Your task to perform on an android device: Go to battery settings Image 0: 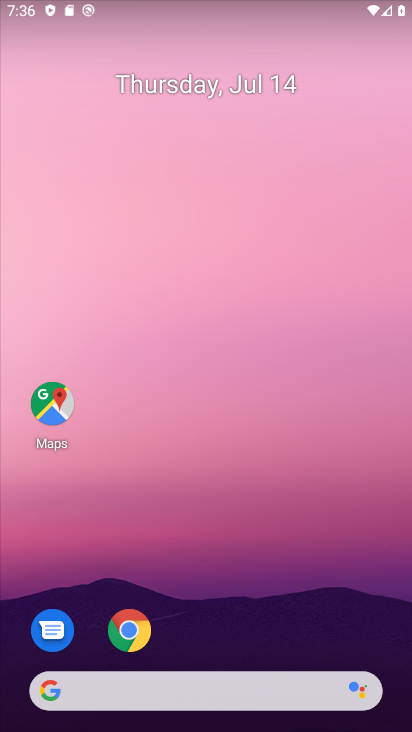
Step 0: drag from (233, 646) to (4, 190)
Your task to perform on an android device: Go to battery settings Image 1: 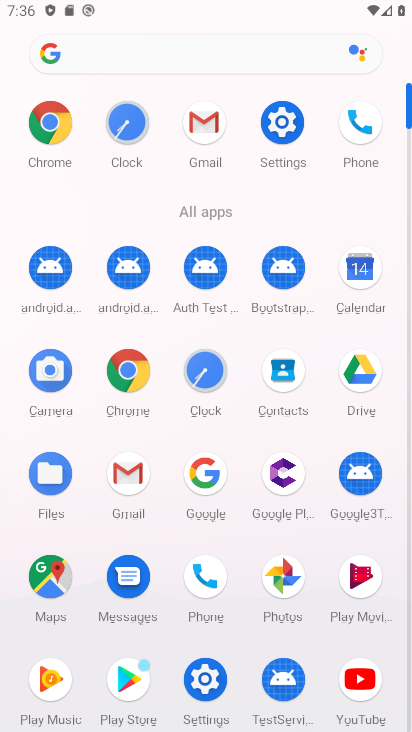
Step 1: click (275, 115)
Your task to perform on an android device: Go to battery settings Image 2: 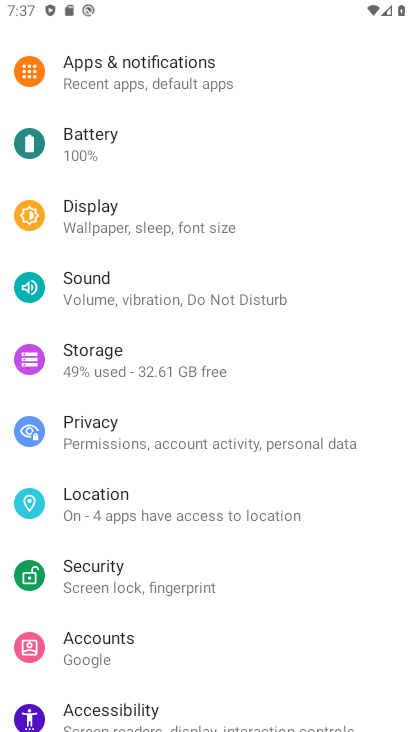
Step 2: click (87, 146)
Your task to perform on an android device: Go to battery settings Image 3: 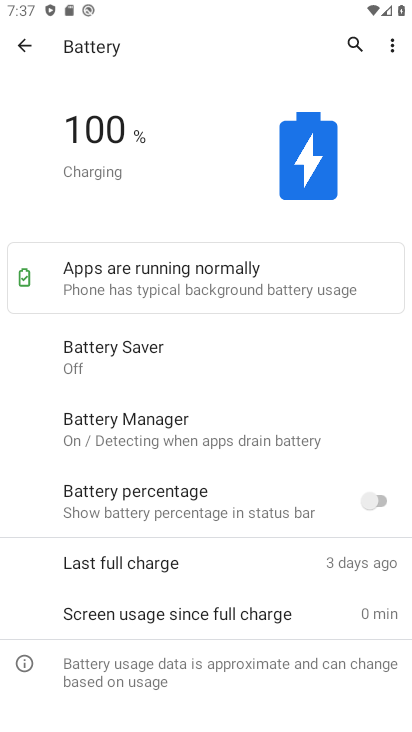
Step 3: task complete